Your task to perform on an android device: choose inbox layout in the gmail app Image 0: 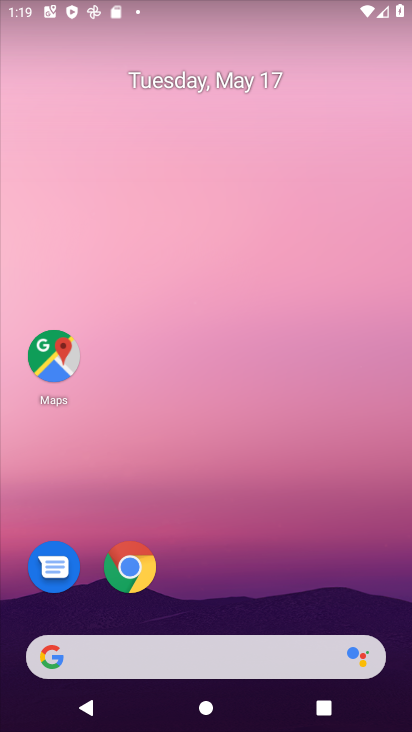
Step 0: drag from (395, 622) to (310, 140)
Your task to perform on an android device: choose inbox layout in the gmail app Image 1: 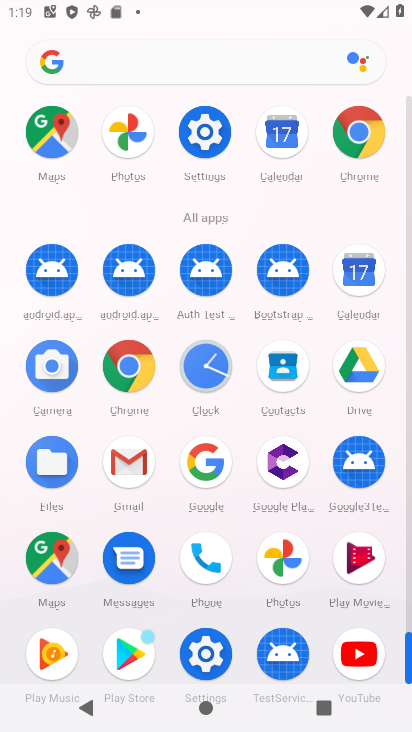
Step 1: click (125, 461)
Your task to perform on an android device: choose inbox layout in the gmail app Image 2: 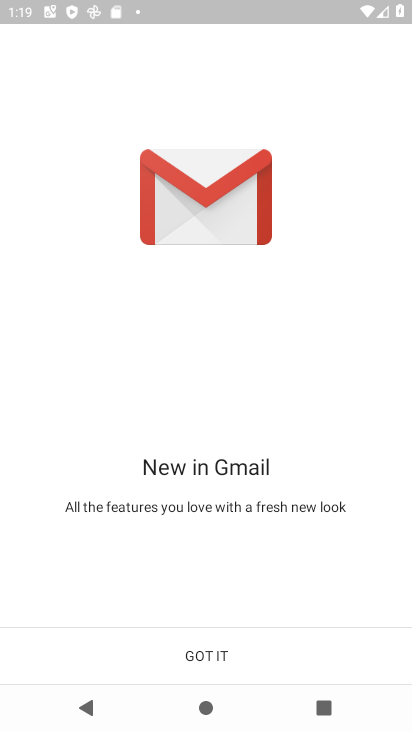
Step 2: click (206, 655)
Your task to perform on an android device: choose inbox layout in the gmail app Image 3: 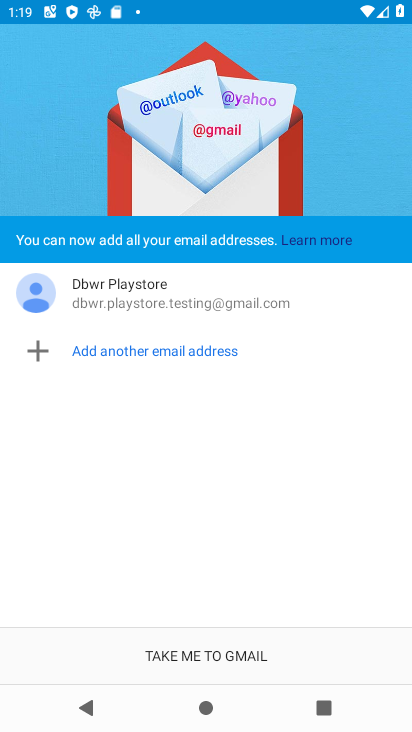
Step 3: click (206, 655)
Your task to perform on an android device: choose inbox layout in the gmail app Image 4: 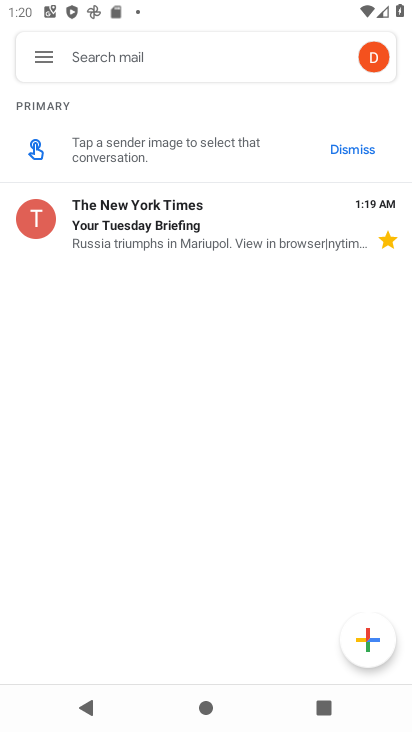
Step 4: click (41, 58)
Your task to perform on an android device: choose inbox layout in the gmail app Image 5: 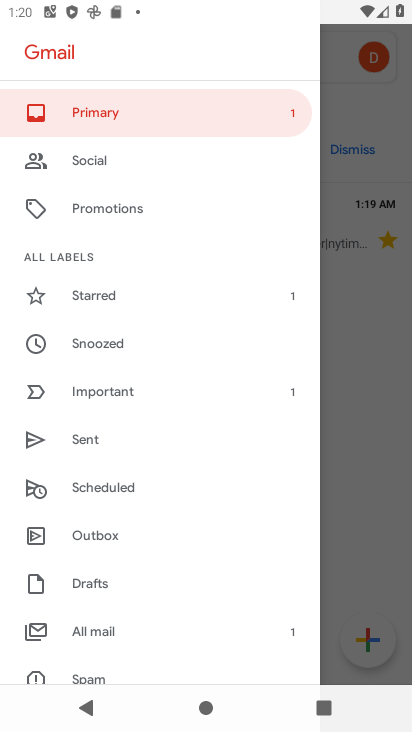
Step 5: drag from (155, 582) to (171, 203)
Your task to perform on an android device: choose inbox layout in the gmail app Image 6: 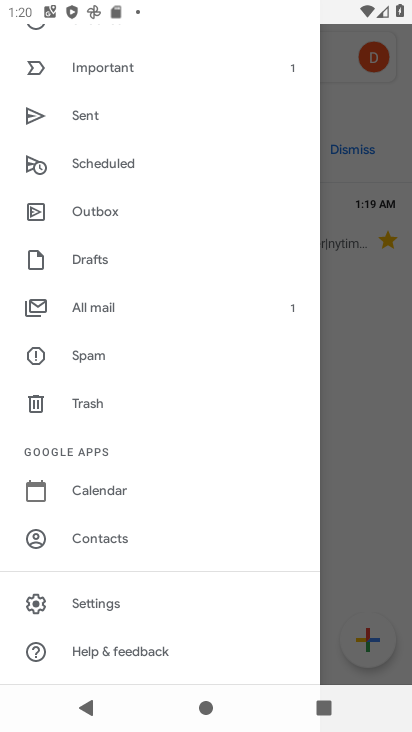
Step 6: click (98, 594)
Your task to perform on an android device: choose inbox layout in the gmail app Image 7: 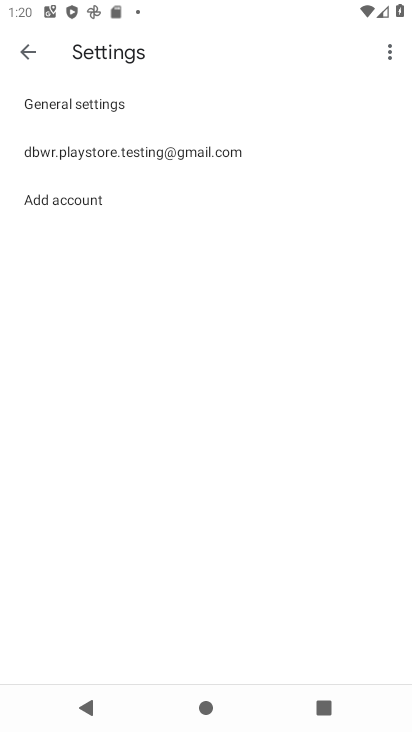
Step 7: click (140, 154)
Your task to perform on an android device: choose inbox layout in the gmail app Image 8: 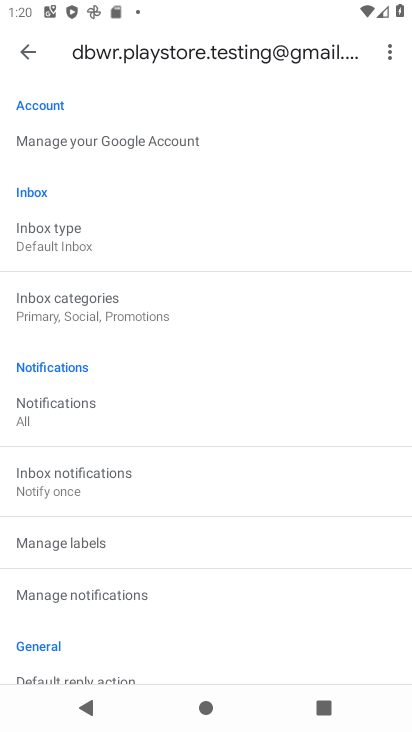
Step 8: click (50, 226)
Your task to perform on an android device: choose inbox layout in the gmail app Image 9: 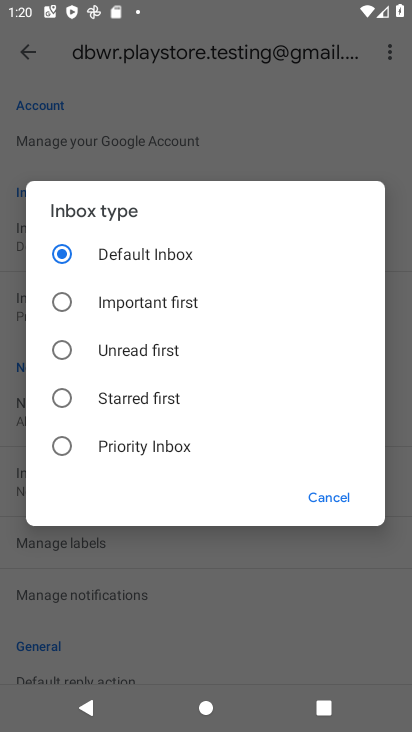
Step 9: click (63, 300)
Your task to perform on an android device: choose inbox layout in the gmail app Image 10: 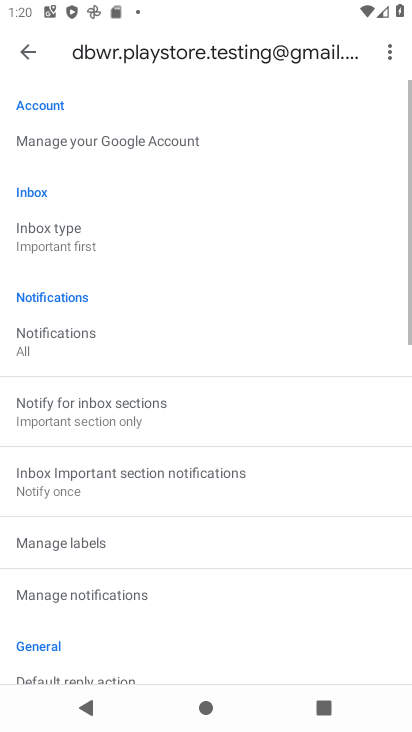
Step 10: task complete